Your task to perform on an android device: check battery use Image 0: 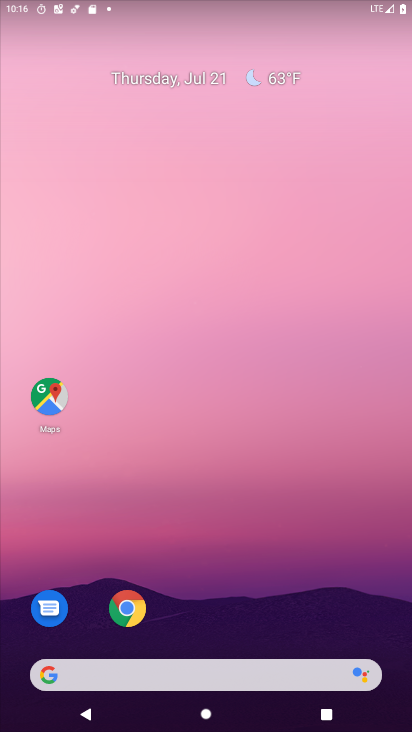
Step 0: press home button
Your task to perform on an android device: check battery use Image 1: 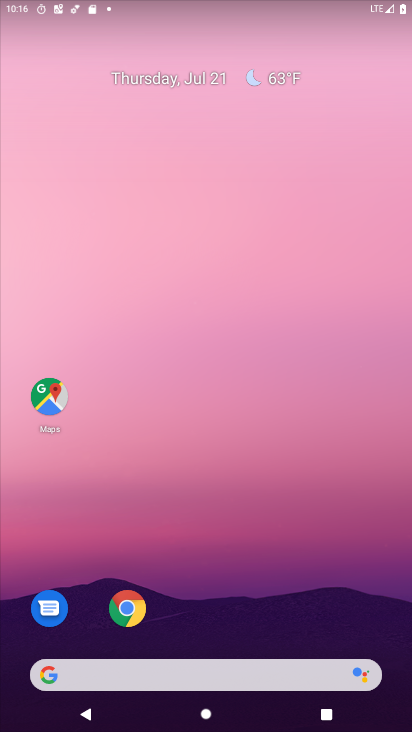
Step 1: drag from (247, 665) to (328, 180)
Your task to perform on an android device: check battery use Image 2: 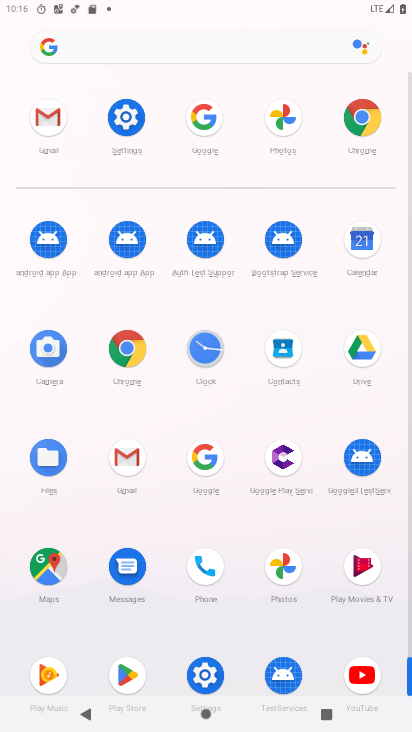
Step 2: click (133, 131)
Your task to perform on an android device: check battery use Image 3: 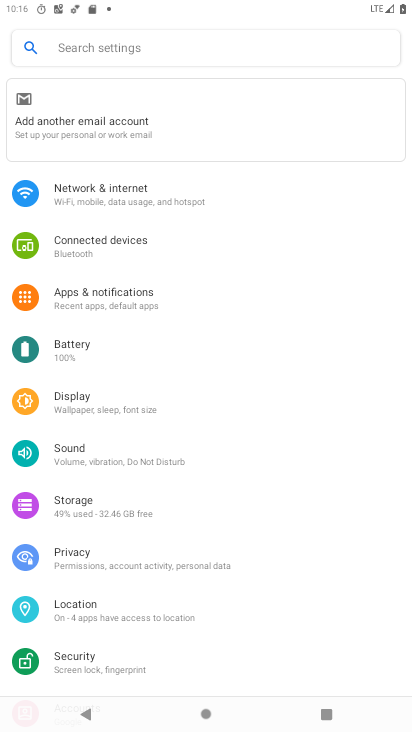
Step 3: click (83, 348)
Your task to perform on an android device: check battery use Image 4: 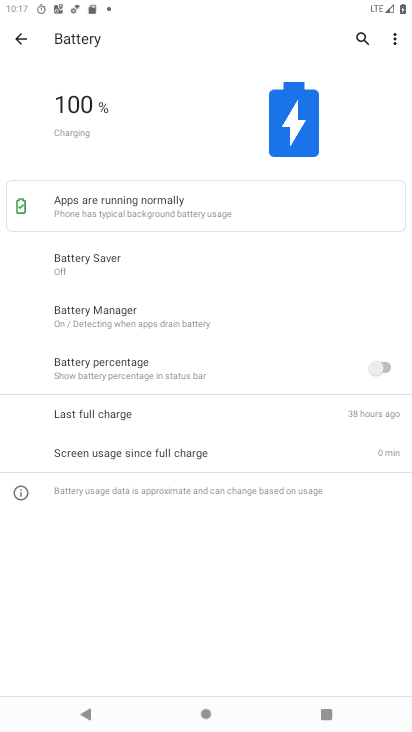
Step 4: task complete